Your task to perform on an android device: Go to Reddit.com Image 0: 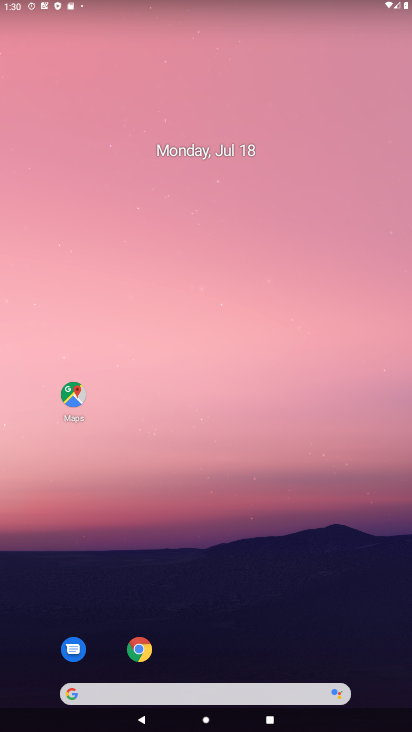
Step 0: click (132, 651)
Your task to perform on an android device: Go to Reddit.com Image 1: 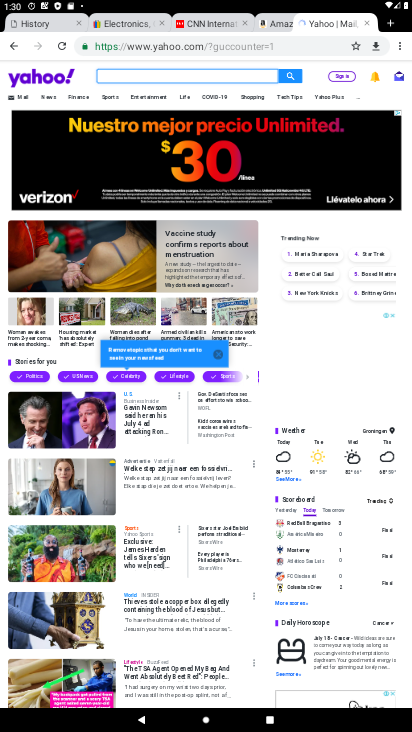
Step 1: click (388, 22)
Your task to perform on an android device: Go to Reddit.com Image 2: 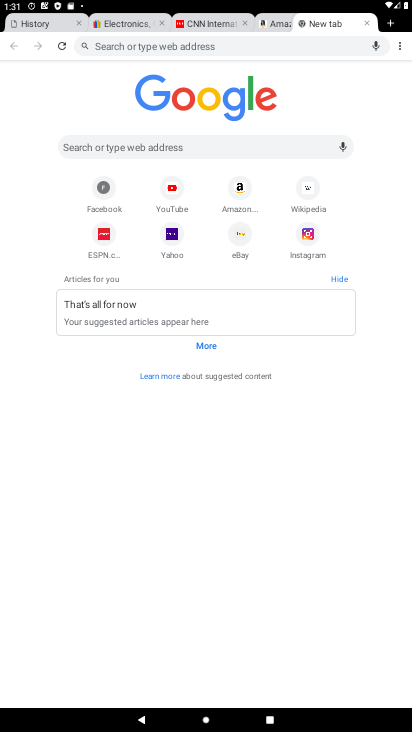
Step 2: click (117, 154)
Your task to perform on an android device: Go to Reddit.com Image 3: 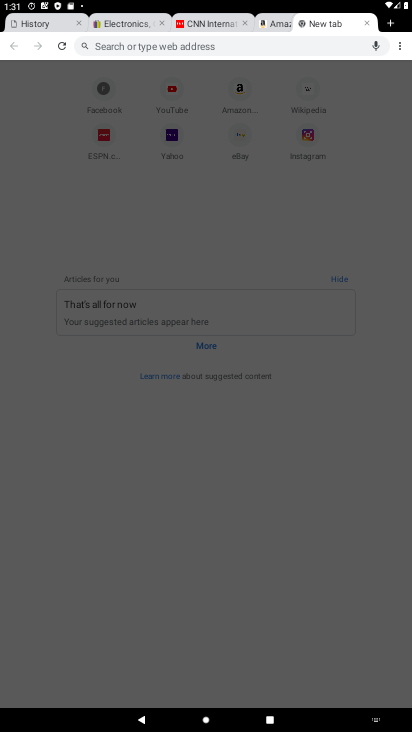
Step 3: type "Reddit.com"
Your task to perform on an android device: Go to Reddit.com Image 4: 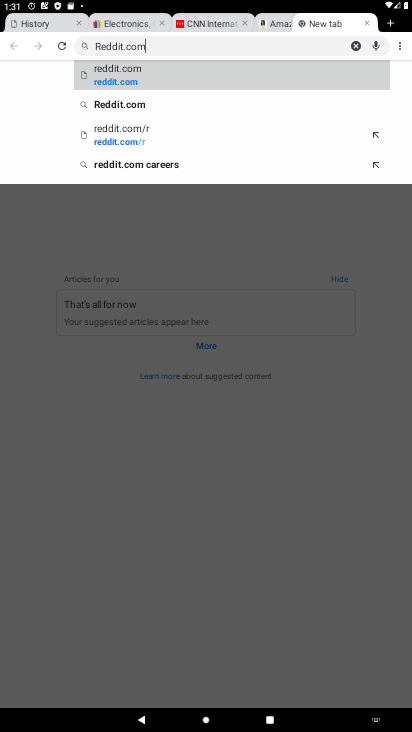
Step 4: type ""
Your task to perform on an android device: Go to Reddit.com Image 5: 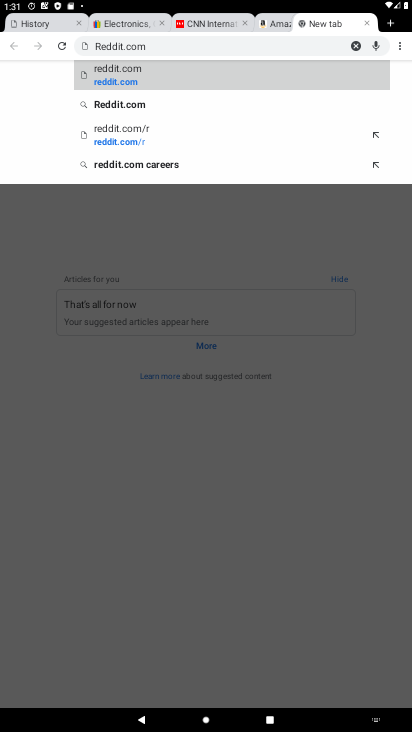
Step 5: click (263, 78)
Your task to perform on an android device: Go to Reddit.com Image 6: 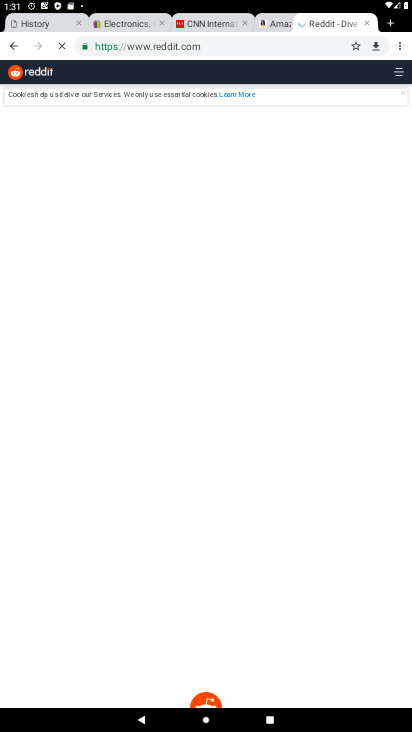
Step 6: task complete